Your task to perform on an android device: install app "The Home Depot" Image 0: 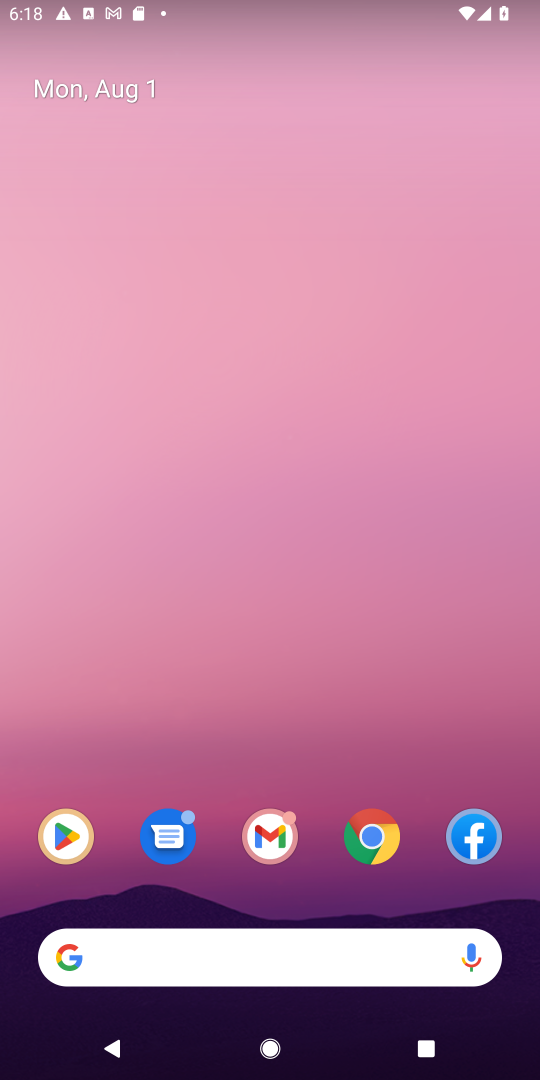
Step 0: press home button
Your task to perform on an android device: install app "The Home Depot" Image 1: 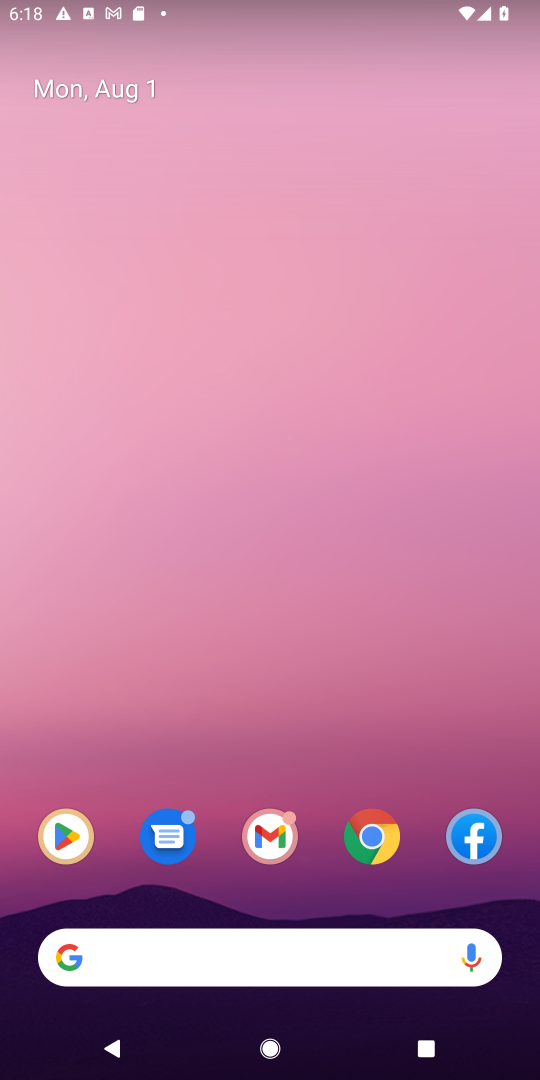
Step 1: click (62, 841)
Your task to perform on an android device: install app "The Home Depot" Image 2: 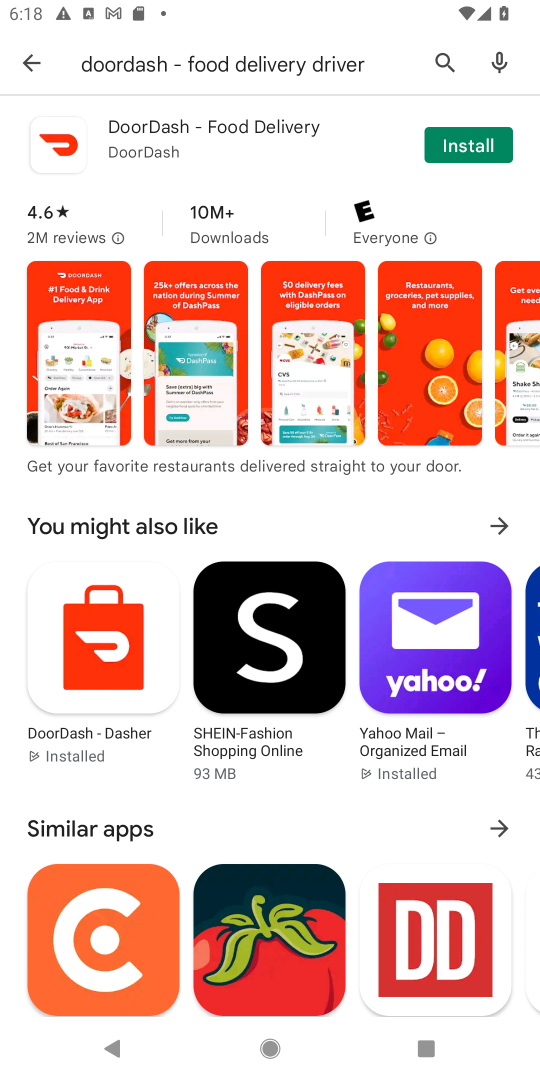
Step 2: click (442, 60)
Your task to perform on an android device: install app "The Home Depot" Image 3: 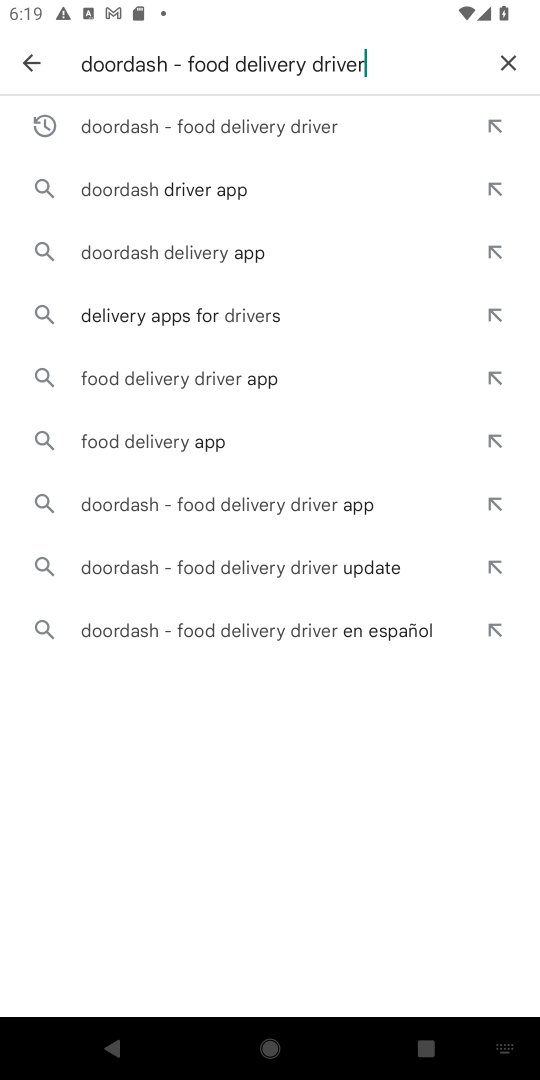
Step 3: click (507, 62)
Your task to perform on an android device: install app "The Home Depot" Image 4: 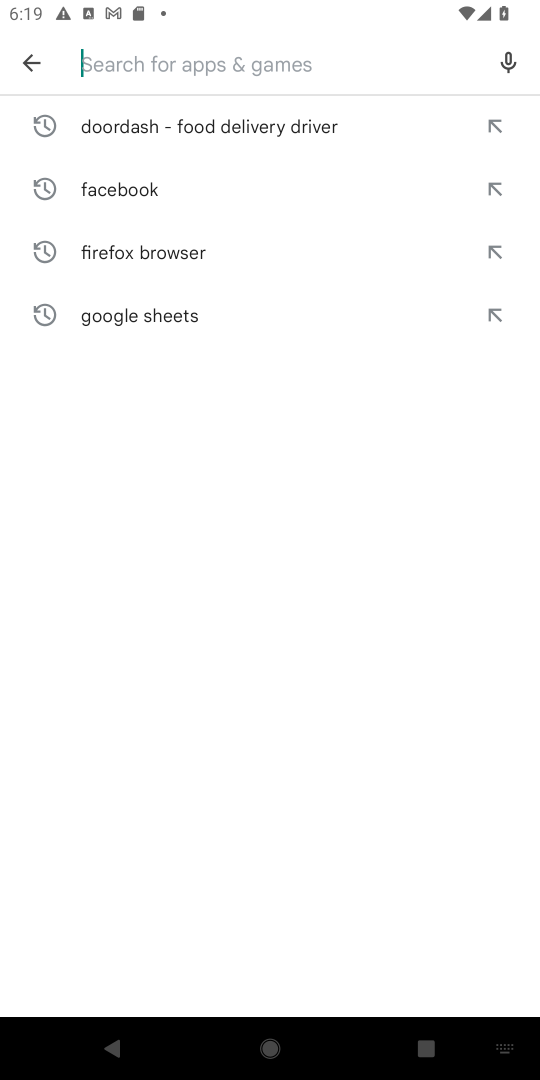
Step 4: type "The Home Depot"
Your task to perform on an android device: install app "The Home Depot" Image 5: 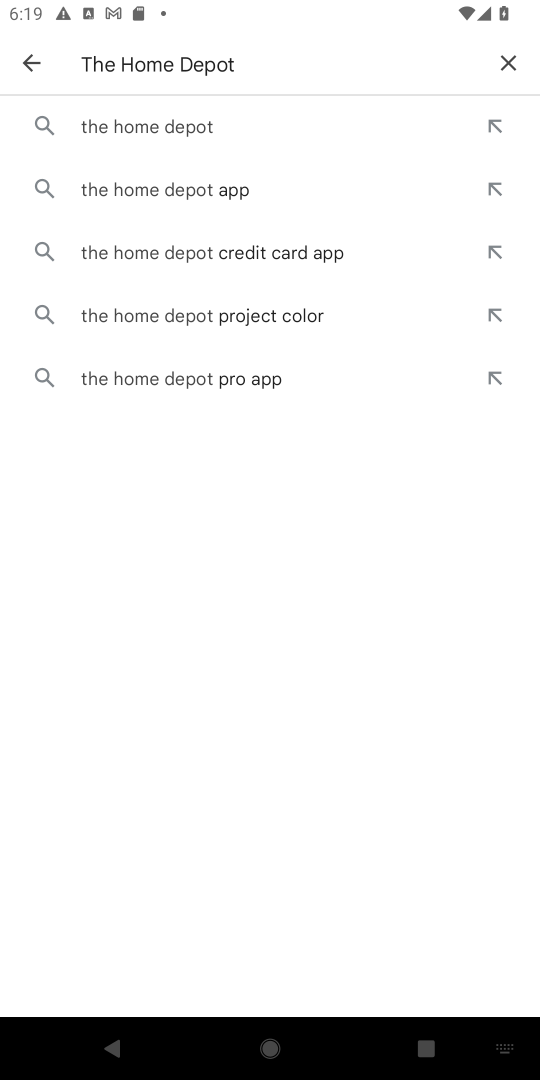
Step 5: click (184, 123)
Your task to perform on an android device: install app "The Home Depot" Image 6: 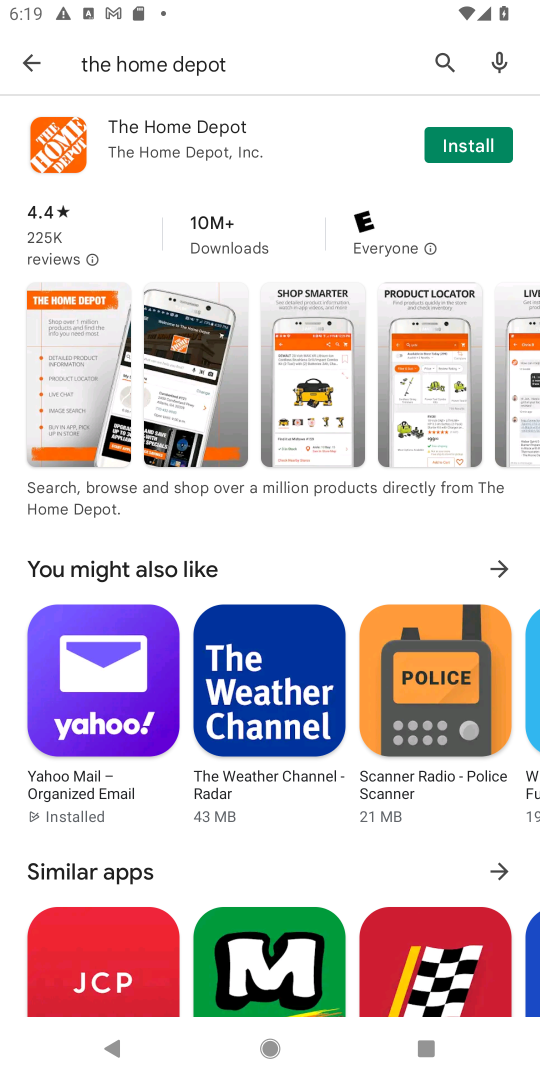
Step 6: click (477, 143)
Your task to perform on an android device: install app "The Home Depot" Image 7: 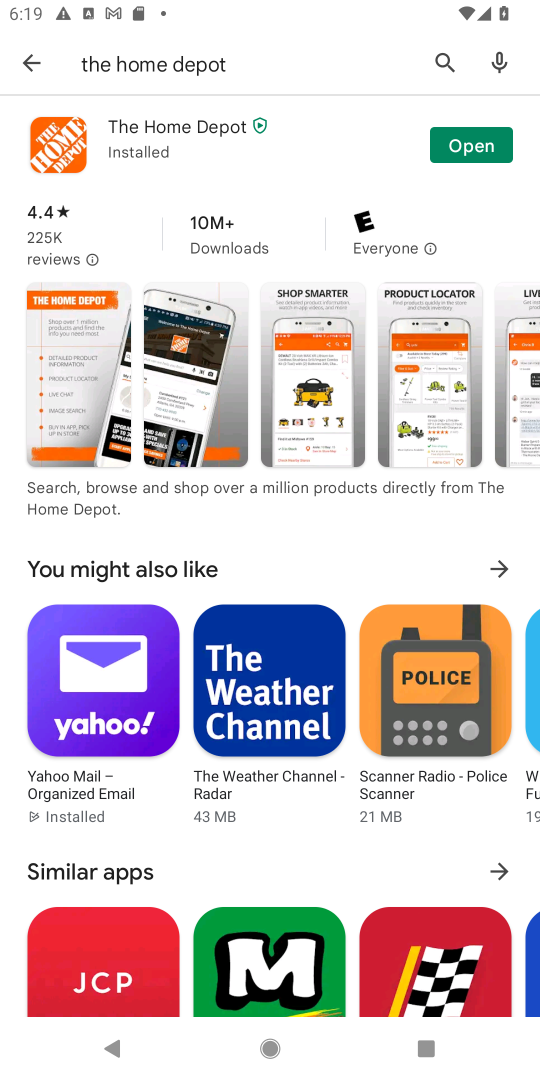
Step 7: task complete